Your task to perform on an android device: Empty the shopping cart on target. Add razer huntsman to the cart on target, then select checkout. Image 0: 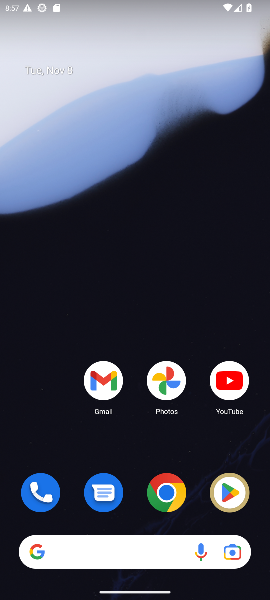
Step 0: click (168, 490)
Your task to perform on an android device: Empty the shopping cart on target. Add razer huntsman to the cart on target, then select checkout. Image 1: 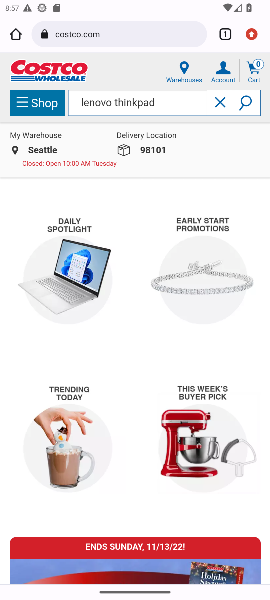
Step 1: click (121, 31)
Your task to perform on an android device: Empty the shopping cart on target. Add razer huntsman to the cart on target, then select checkout. Image 2: 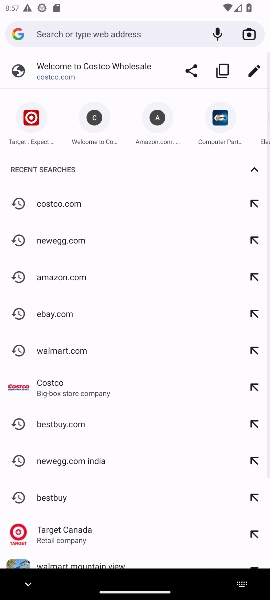
Step 2: click (29, 121)
Your task to perform on an android device: Empty the shopping cart on target. Add razer huntsman to the cart on target, then select checkout. Image 3: 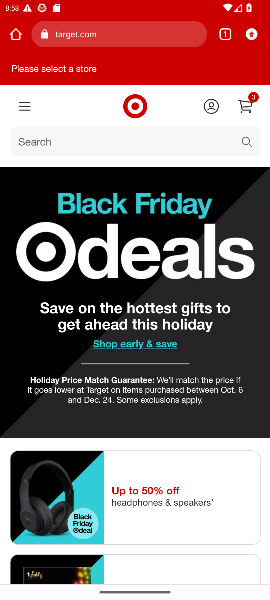
Step 3: click (249, 105)
Your task to perform on an android device: Empty the shopping cart on target. Add razer huntsman to the cart on target, then select checkout. Image 4: 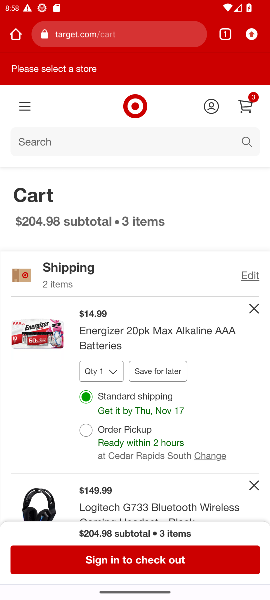
Step 4: click (252, 308)
Your task to perform on an android device: Empty the shopping cart on target. Add razer huntsman to the cart on target, then select checkout. Image 5: 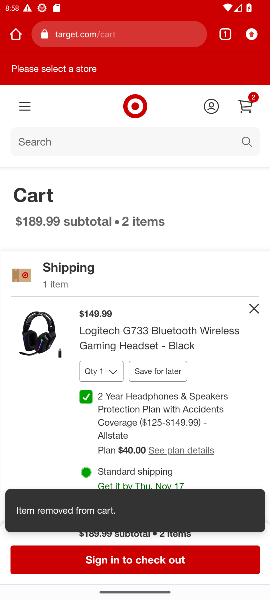
Step 5: click (252, 308)
Your task to perform on an android device: Empty the shopping cart on target. Add razer huntsman to the cart on target, then select checkout. Image 6: 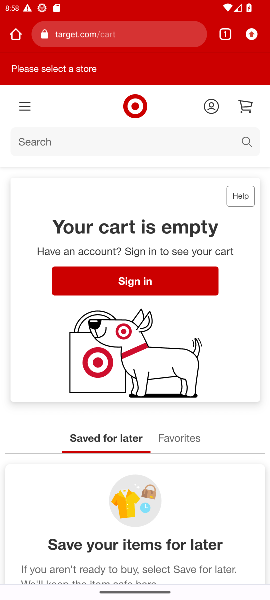
Step 6: click (241, 138)
Your task to perform on an android device: Empty the shopping cart on target. Add razer huntsman to the cart on target, then select checkout. Image 7: 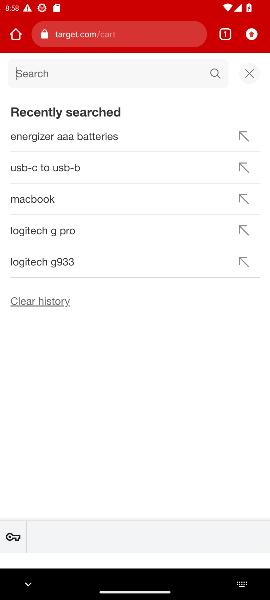
Step 7: type "razer huntsman "
Your task to perform on an android device: Empty the shopping cart on target. Add razer huntsman to the cart on target, then select checkout. Image 8: 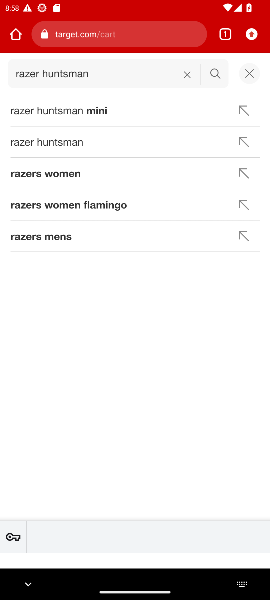
Step 8: click (54, 146)
Your task to perform on an android device: Empty the shopping cart on target. Add razer huntsman to the cart on target, then select checkout. Image 9: 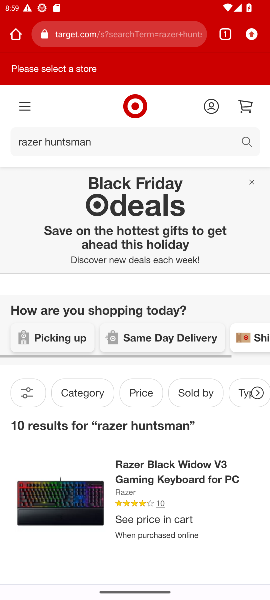
Step 9: drag from (116, 491) to (125, 290)
Your task to perform on an android device: Empty the shopping cart on target. Add razer huntsman to the cart on target, then select checkout. Image 10: 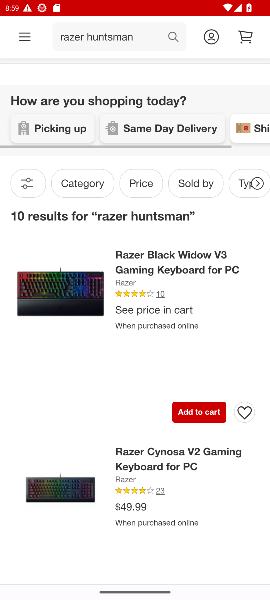
Step 10: drag from (126, 505) to (192, 52)
Your task to perform on an android device: Empty the shopping cart on target. Add razer huntsman to the cart on target, then select checkout. Image 11: 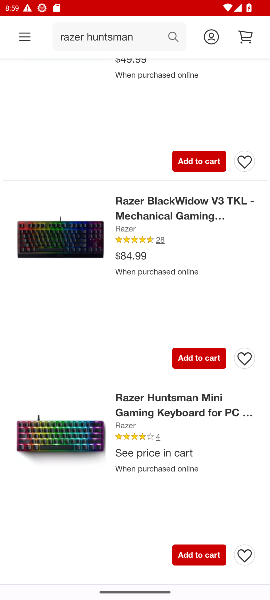
Step 11: click (37, 449)
Your task to perform on an android device: Empty the shopping cart on target. Add razer huntsman to the cart on target, then select checkout. Image 12: 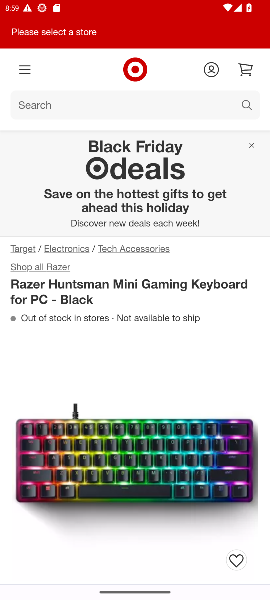
Step 12: press back button
Your task to perform on an android device: Empty the shopping cart on target. Add razer huntsman to the cart on target, then select checkout. Image 13: 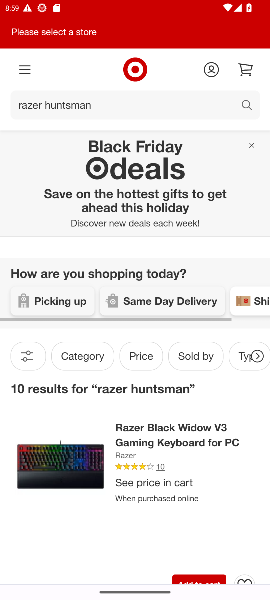
Step 13: drag from (67, 479) to (106, 203)
Your task to perform on an android device: Empty the shopping cart on target. Add razer huntsman to the cart on target, then select checkout. Image 14: 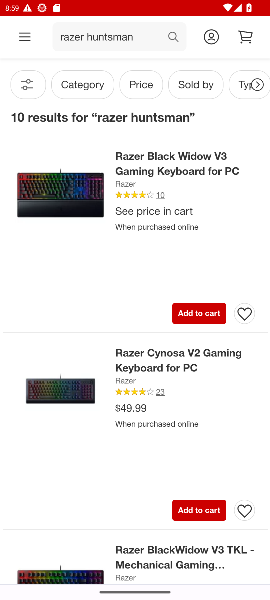
Step 14: drag from (56, 417) to (75, 177)
Your task to perform on an android device: Empty the shopping cart on target. Add razer huntsman to the cart on target, then select checkout. Image 15: 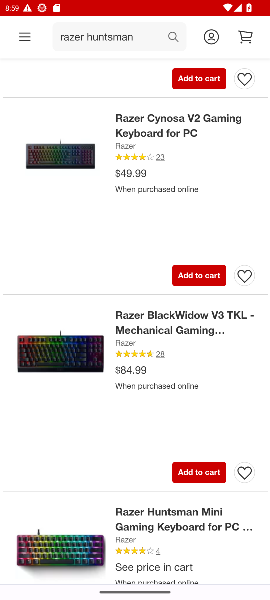
Step 15: drag from (35, 472) to (49, 235)
Your task to perform on an android device: Empty the shopping cart on target. Add razer huntsman to the cart on target, then select checkout. Image 16: 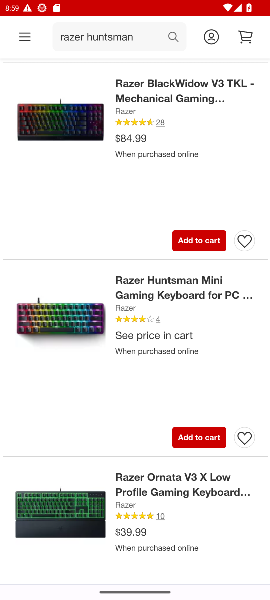
Step 16: click (51, 319)
Your task to perform on an android device: Empty the shopping cart on target. Add razer huntsman to the cart on target, then select checkout. Image 17: 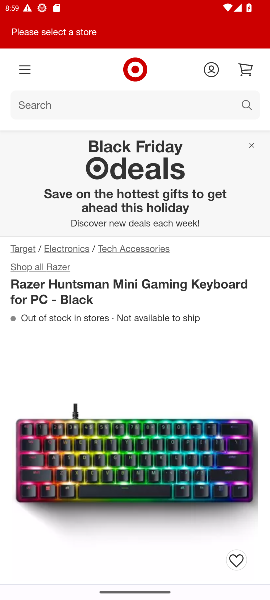
Step 17: drag from (155, 488) to (134, 194)
Your task to perform on an android device: Empty the shopping cart on target. Add razer huntsman to the cart on target, then select checkout. Image 18: 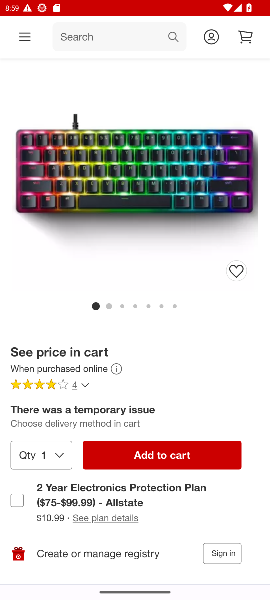
Step 18: click (189, 462)
Your task to perform on an android device: Empty the shopping cart on target. Add razer huntsman to the cart on target, then select checkout. Image 19: 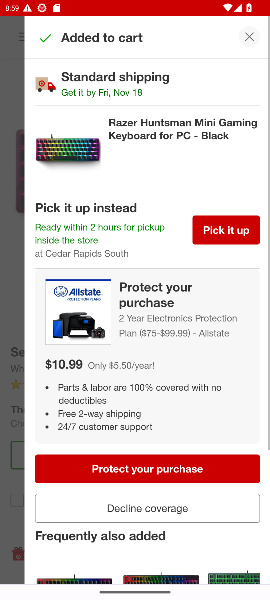
Step 19: click (253, 39)
Your task to perform on an android device: Empty the shopping cart on target. Add razer huntsman to the cart on target, then select checkout. Image 20: 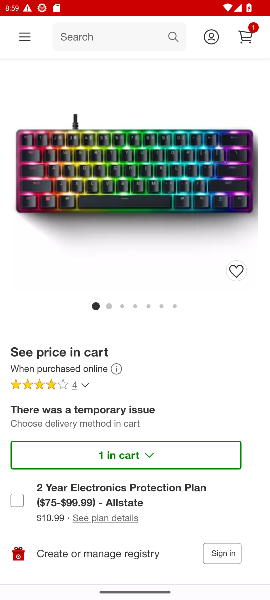
Step 20: click (246, 43)
Your task to perform on an android device: Empty the shopping cart on target. Add razer huntsman to the cart on target, then select checkout. Image 21: 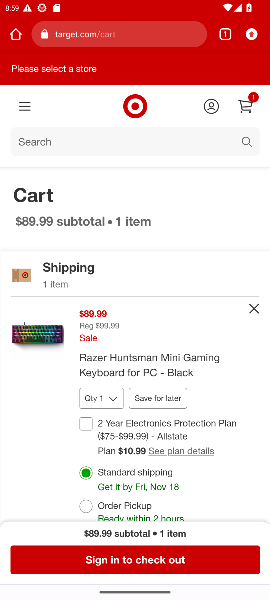
Step 21: click (164, 562)
Your task to perform on an android device: Empty the shopping cart on target. Add razer huntsman to the cart on target, then select checkout. Image 22: 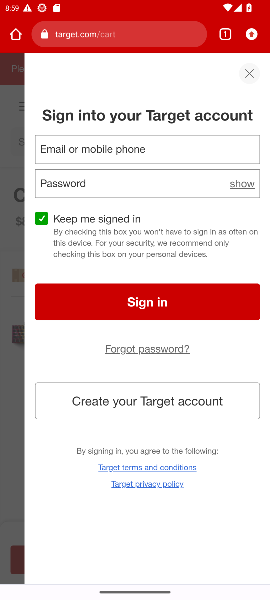
Step 22: click (246, 74)
Your task to perform on an android device: Empty the shopping cart on target. Add razer huntsman to the cart on target, then select checkout. Image 23: 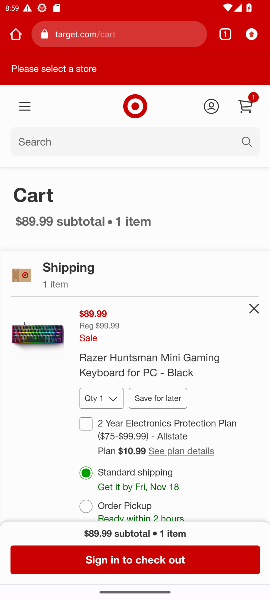
Step 23: task complete